Your task to perform on an android device: toggle notification dots Image 0: 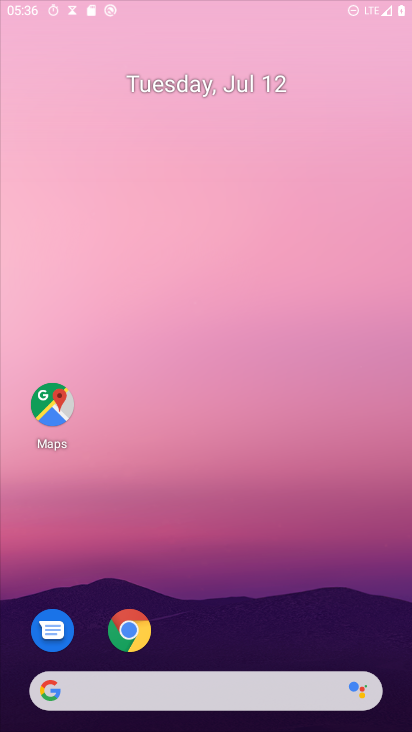
Step 0: drag from (310, 677) to (288, 38)
Your task to perform on an android device: toggle notification dots Image 1: 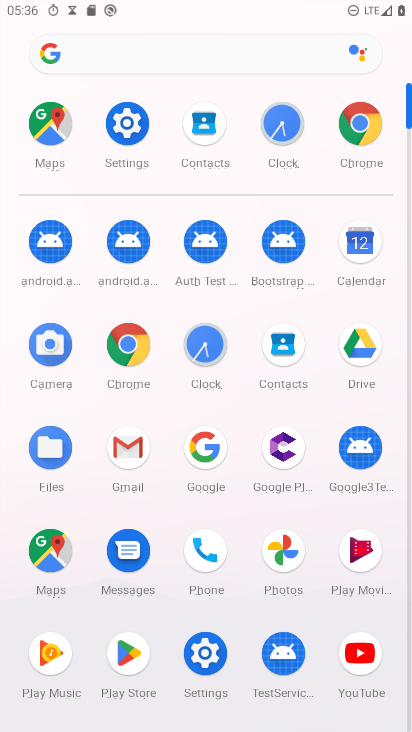
Step 1: click (127, 135)
Your task to perform on an android device: toggle notification dots Image 2: 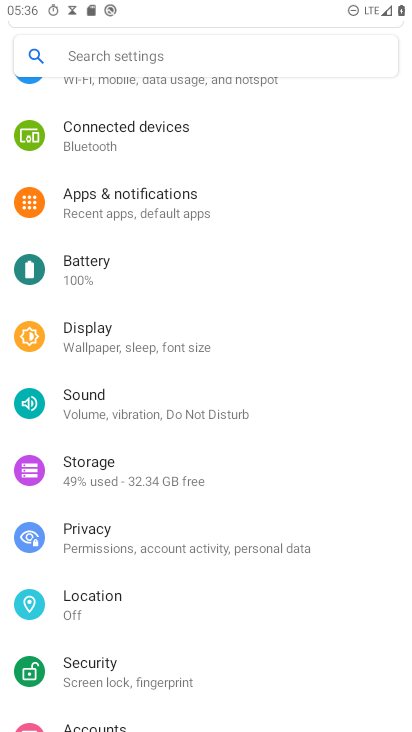
Step 2: click (100, 220)
Your task to perform on an android device: toggle notification dots Image 3: 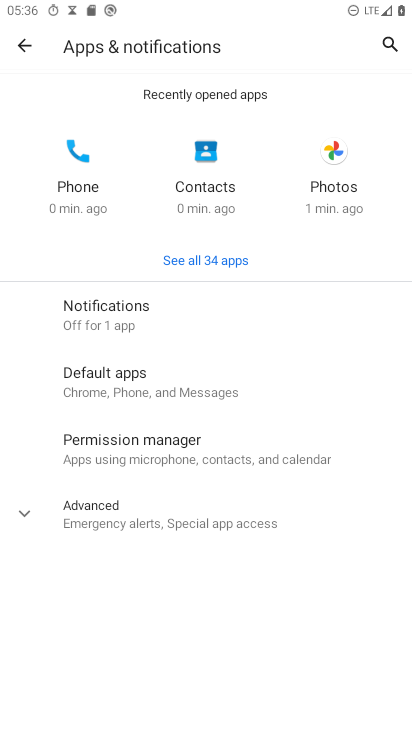
Step 3: click (146, 312)
Your task to perform on an android device: toggle notification dots Image 4: 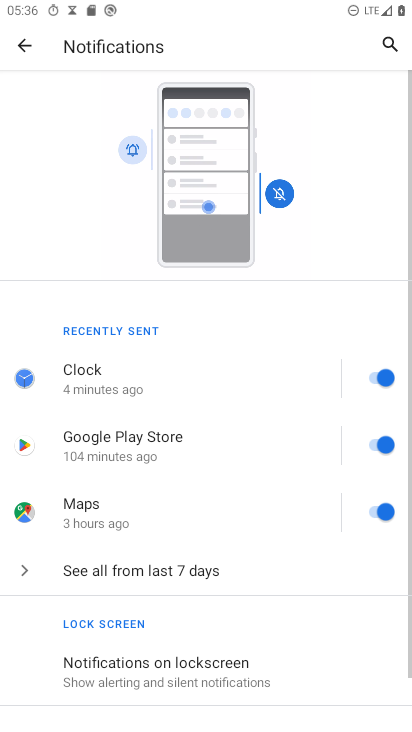
Step 4: drag from (276, 605) to (365, 124)
Your task to perform on an android device: toggle notification dots Image 5: 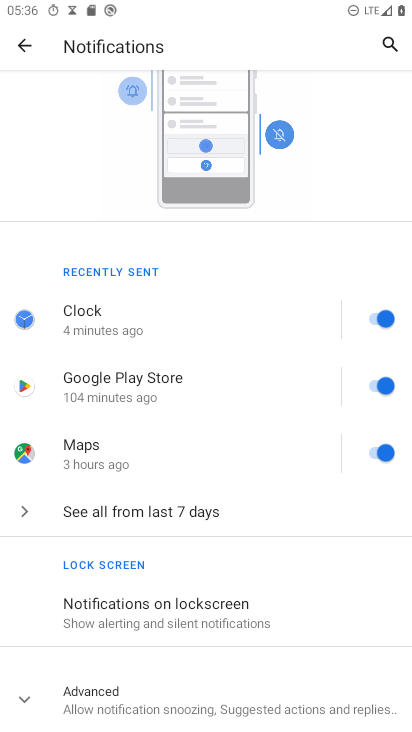
Step 5: click (194, 701)
Your task to perform on an android device: toggle notification dots Image 6: 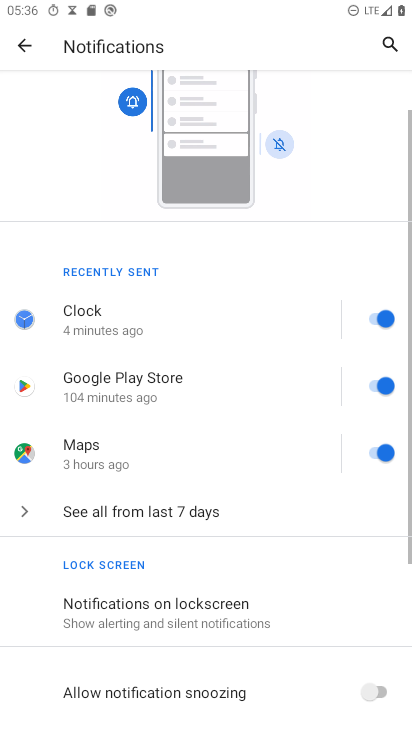
Step 6: drag from (200, 682) to (297, 192)
Your task to perform on an android device: toggle notification dots Image 7: 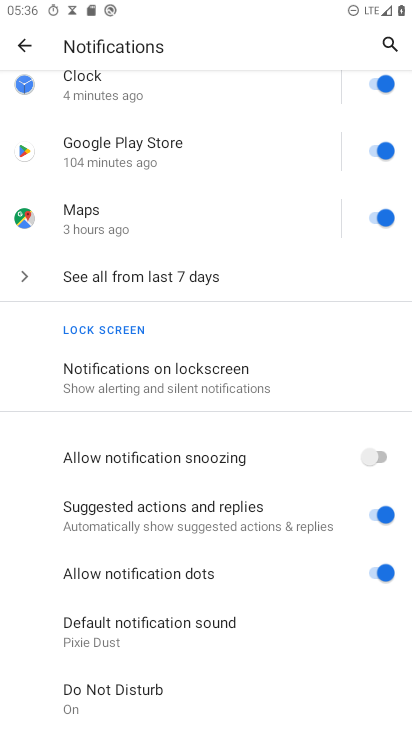
Step 7: click (370, 570)
Your task to perform on an android device: toggle notification dots Image 8: 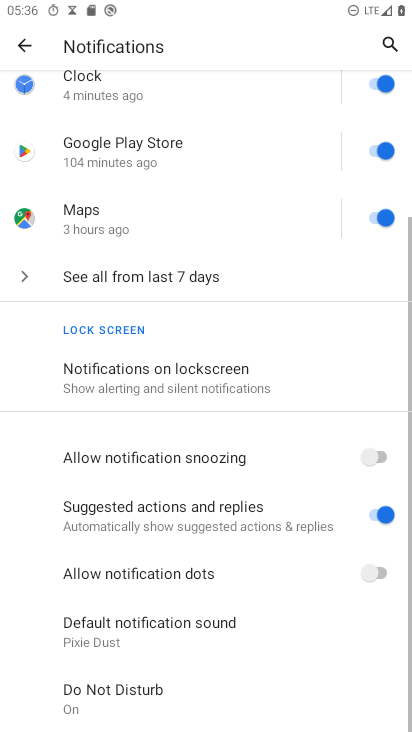
Step 8: task complete